Your task to perform on an android device: add a contact Image 0: 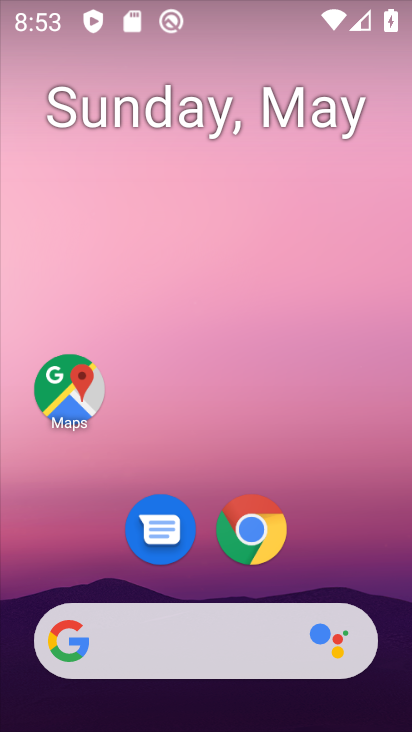
Step 0: drag from (330, 499) to (335, 87)
Your task to perform on an android device: add a contact Image 1: 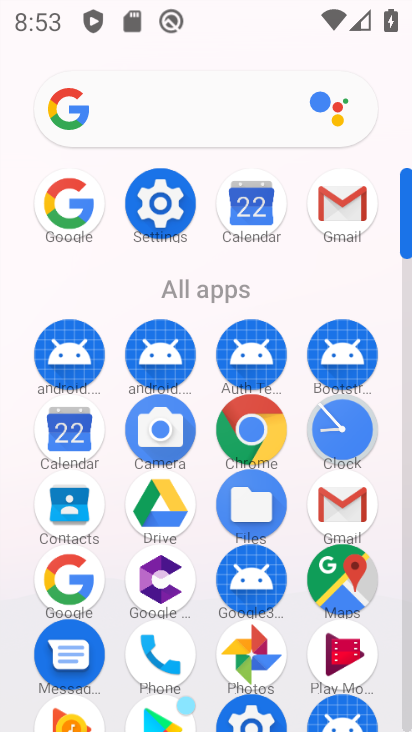
Step 1: click (61, 506)
Your task to perform on an android device: add a contact Image 2: 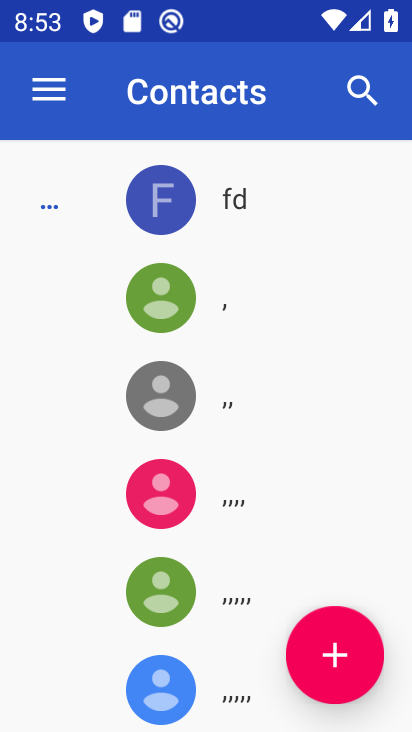
Step 2: click (348, 661)
Your task to perform on an android device: add a contact Image 3: 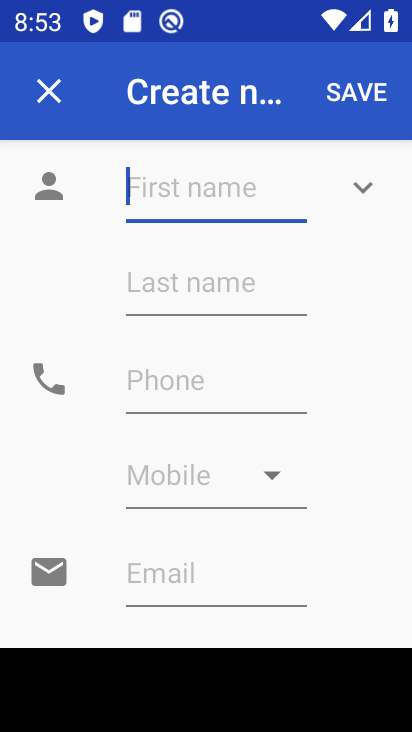
Step 3: type "hnhjhfj"
Your task to perform on an android device: add a contact Image 4: 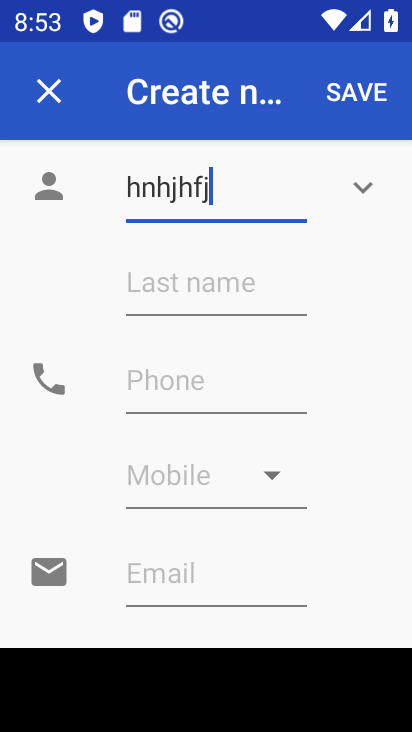
Step 4: click (339, 95)
Your task to perform on an android device: add a contact Image 5: 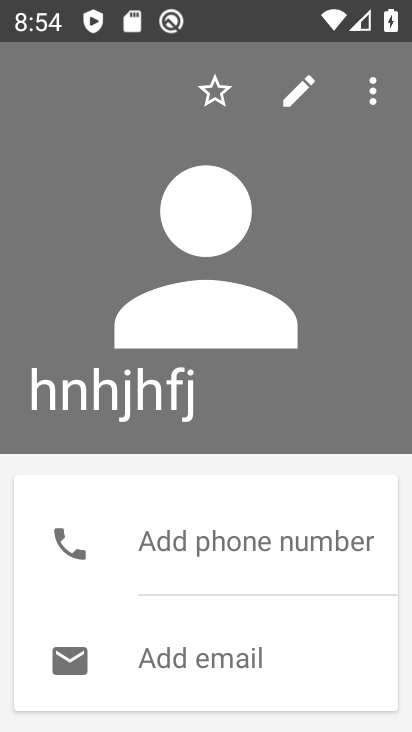
Step 5: task complete